Your task to perform on an android device: Open wifi settings Image 0: 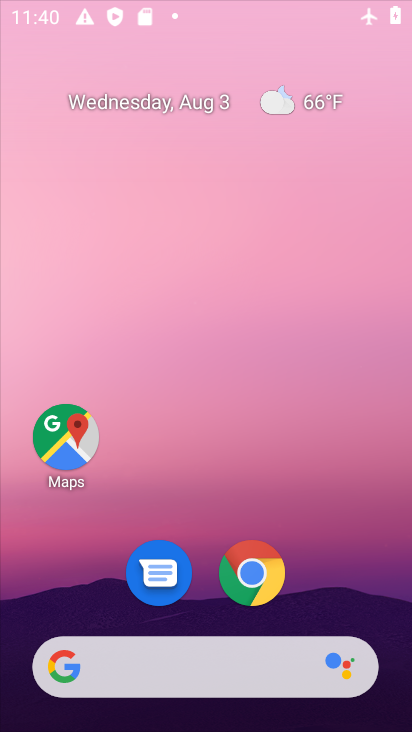
Step 0: drag from (384, 525) to (389, 87)
Your task to perform on an android device: Open wifi settings Image 1: 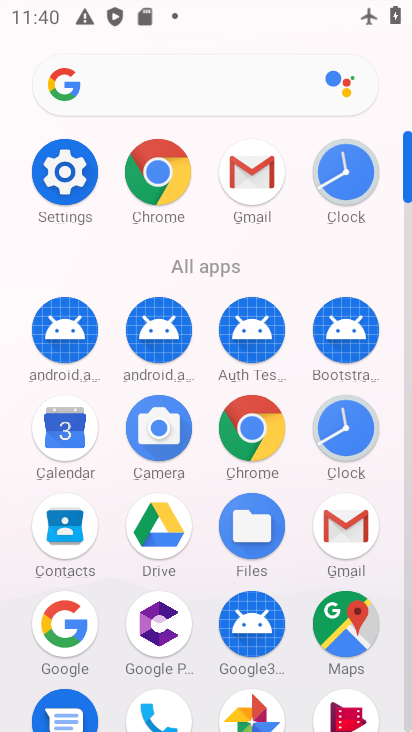
Step 1: click (83, 180)
Your task to perform on an android device: Open wifi settings Image 2: 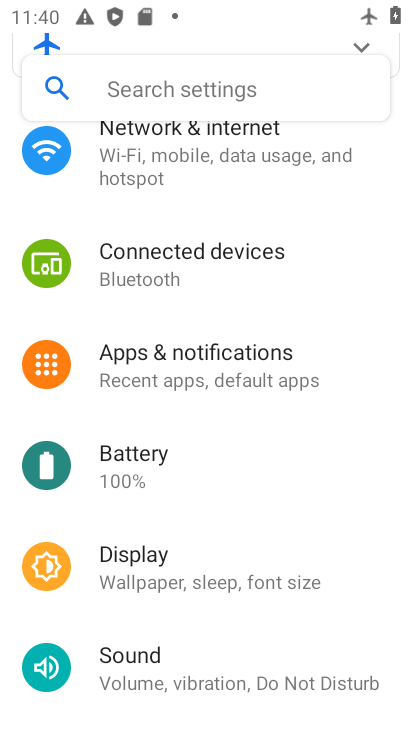
Step 2: click (170, 140)
Your task to perform on an android device: Open wifi settings Image 3: 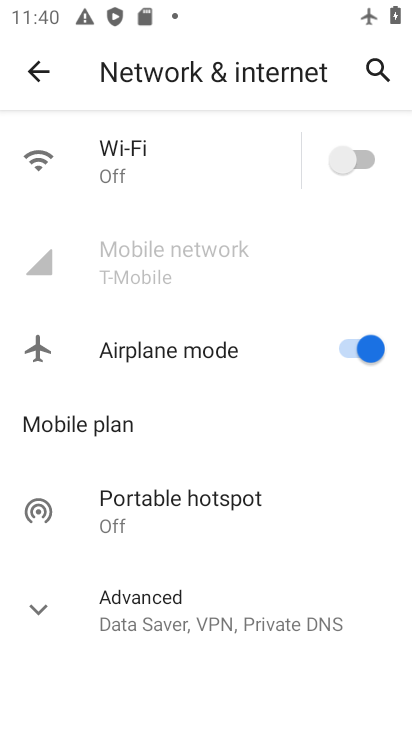
Step 3: click (170, 140)
Your task to perform on an android device: Open wifi settings Image 4: 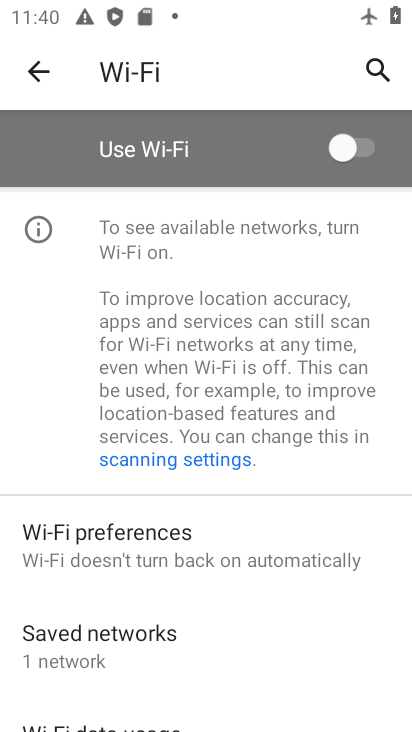
Step 4: click (151, 527)
Your task to perform on an android device: Open wifi settings Image 5: 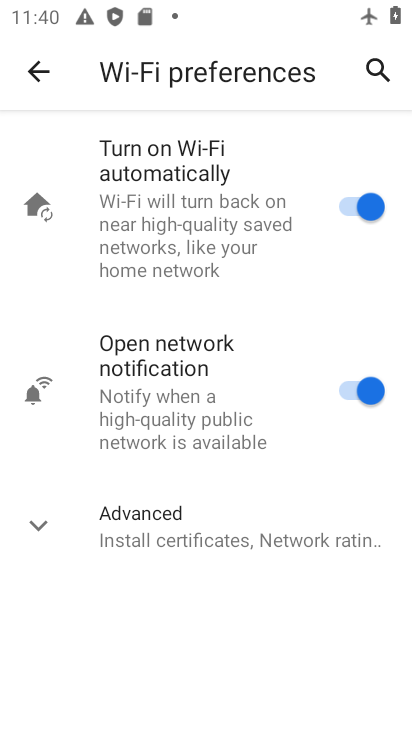
Step 5: task complete